Your task to perform on an android device: toggle location history Image 0: 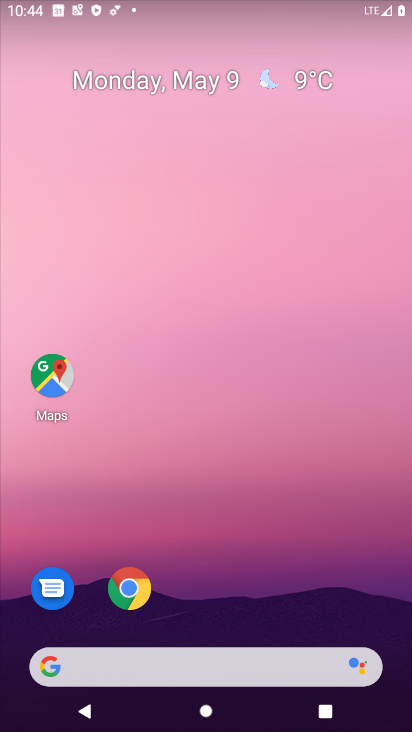
Step 0: press home button
Your task to perform on an android device: toggle location history Image 1: 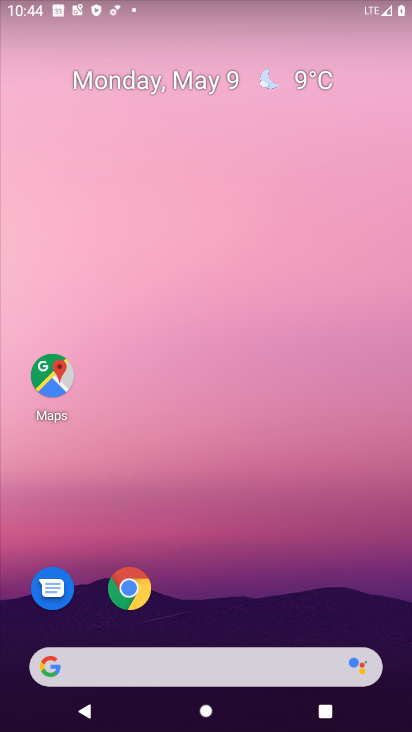
Step 1: drag from (151, 634) to (266, 139)
Your task to perform on an android device: toggle location history Image 2: 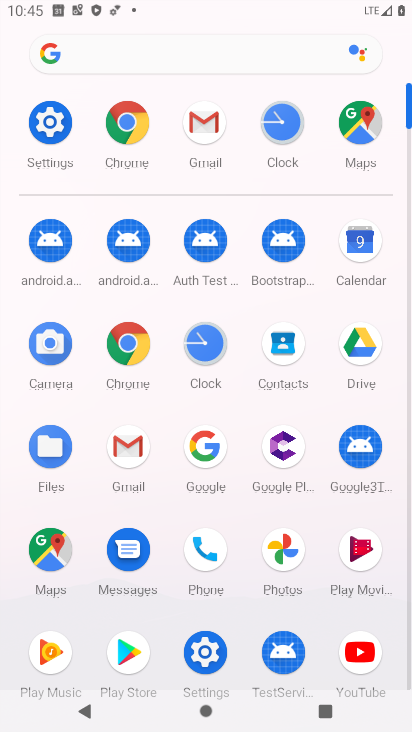
Step 2: click (352, 124)
Your task to perform on an android device: toggle location history Image 3: 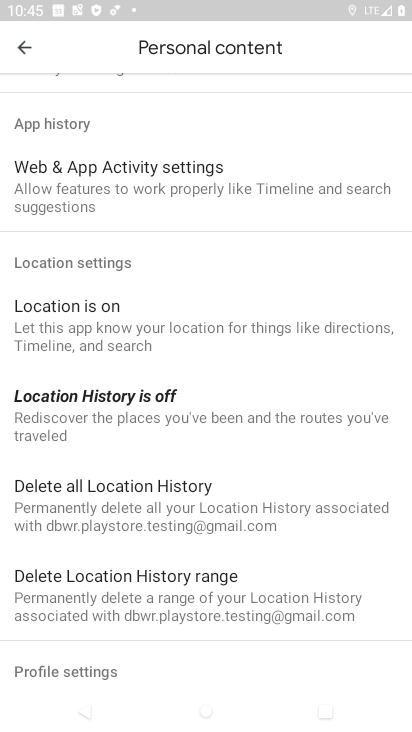
Step 3: click (148, 408)
Your task to perform on an android device: toggle location history Image 4: 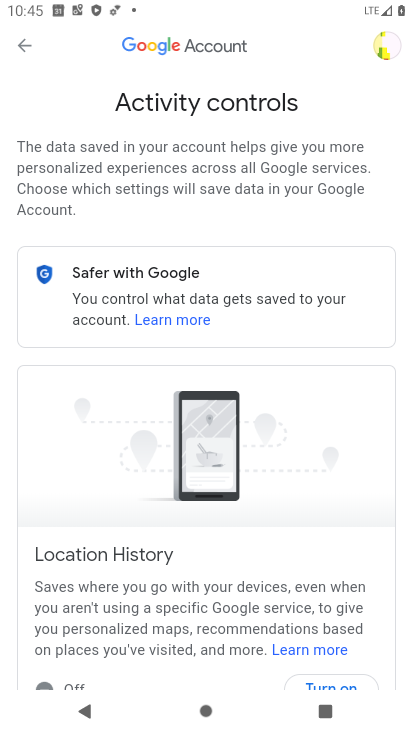
Step 4: drag from (266, 555) to (404, 86)
Your task to perform on an android device: toggle location history Image 5: 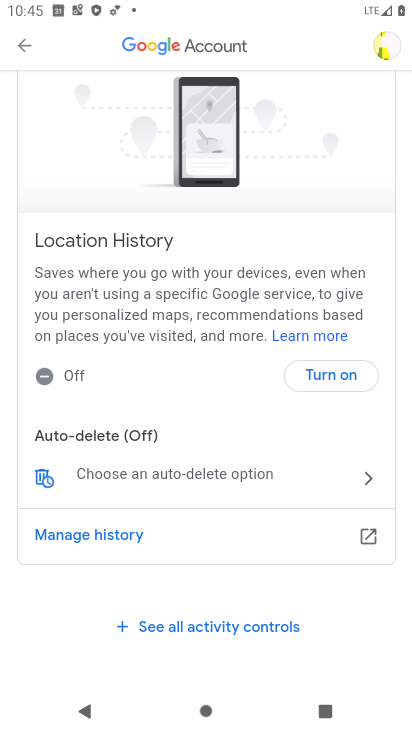
Step 5: click (338, 377)
Your task to perform on an android device: toggle location history Image 6: 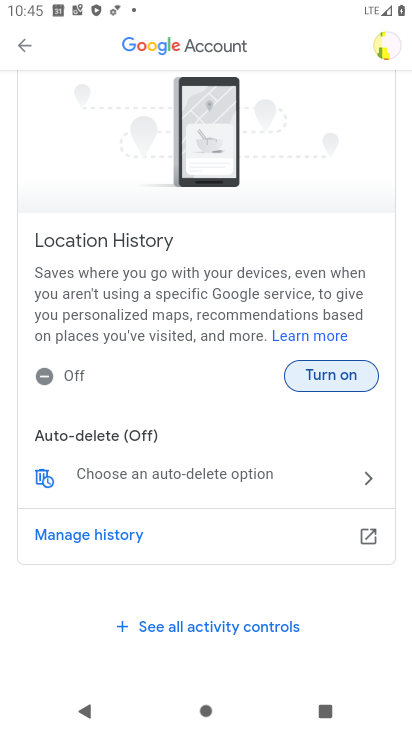
Step 6: click (329, 378)
Your task to perform on an android device: toggle location history Image 7: 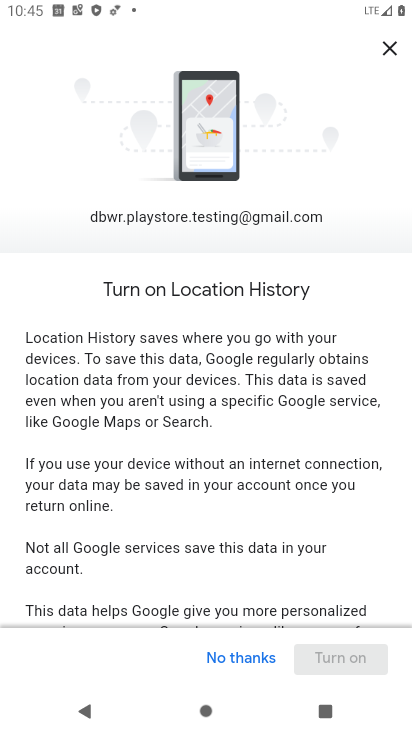
Step 7: drag from (271, 602) to (350, 161)
Your task to perform on an android device: toggle location history Image 8: 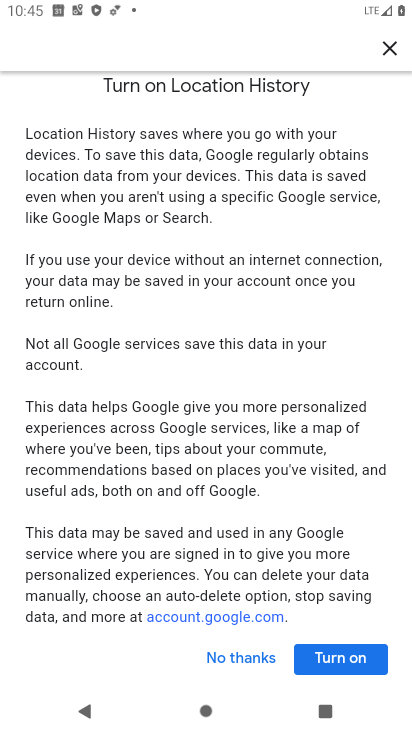
Step 8: click (336, 658)
Your task to perform on an android device: toggle location history Image 9: 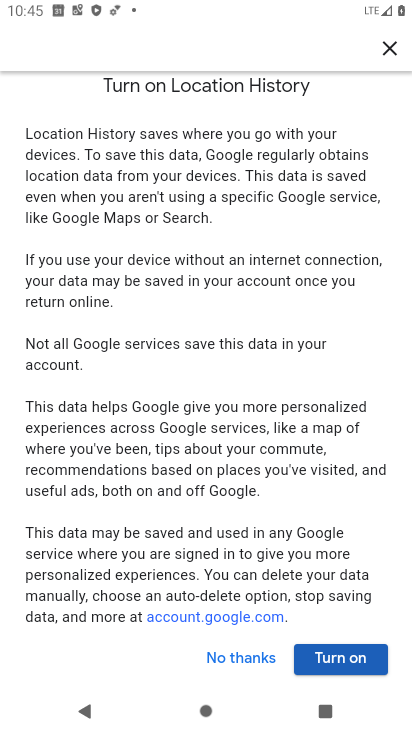
Step 9: click (335, 660)
Your task to perform on an android device: toggle location history Image 10: 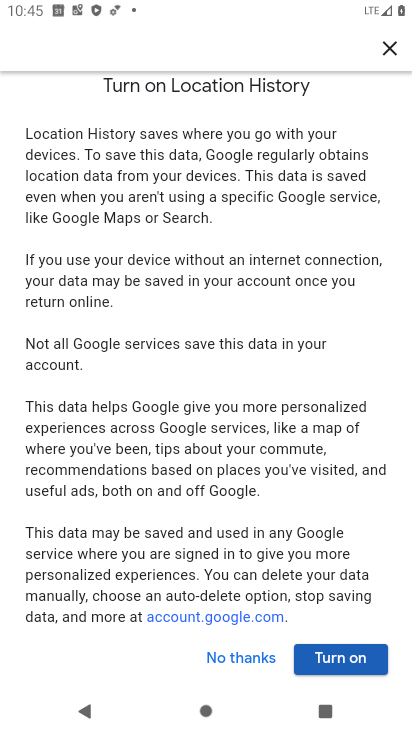
Step 10: click (344, 661)
Your task to perform on an android device: toggle location history Image 11: 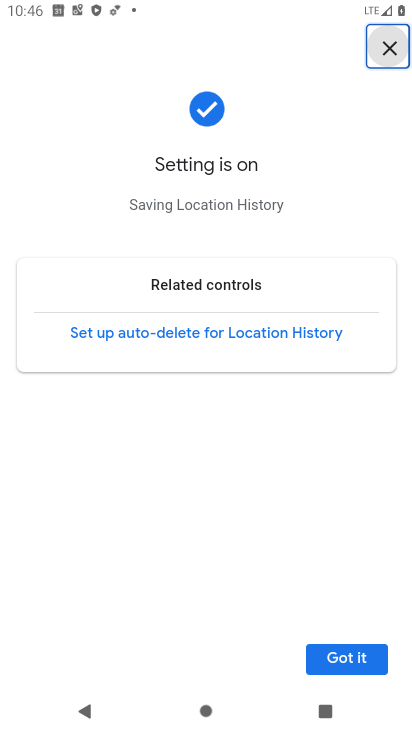
Step 11: task complete